Your task to perform on an android device: Open wifi settings Image 0: 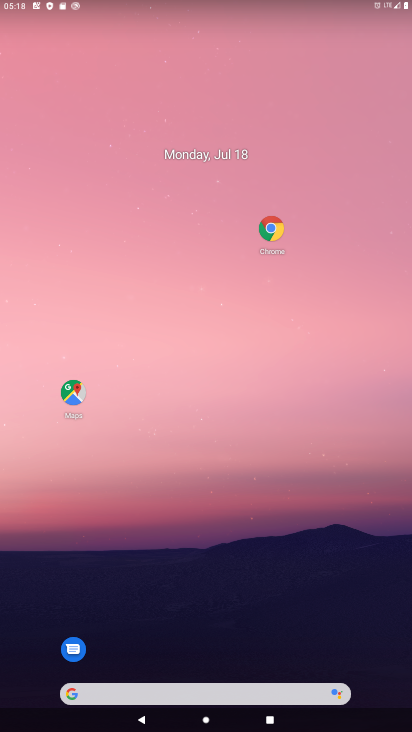
Step 0: click (276, 239)
Your task to perform on an android device: Open wifi settings Image 1: 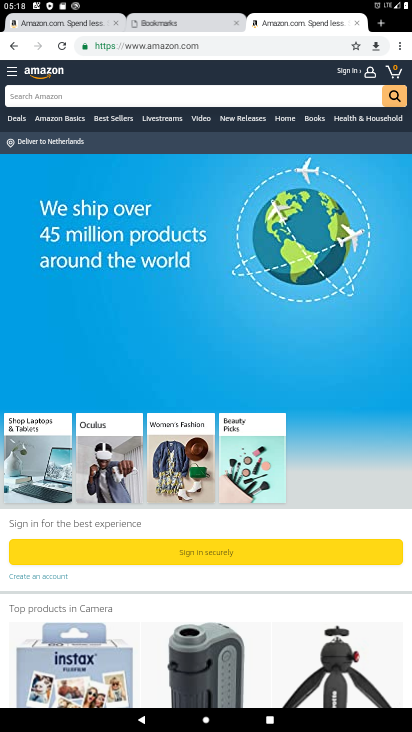
Step 1: drag from (254, 11) to (255, 613)
Your task to perform on an android device: Open wifi settings Image 2: 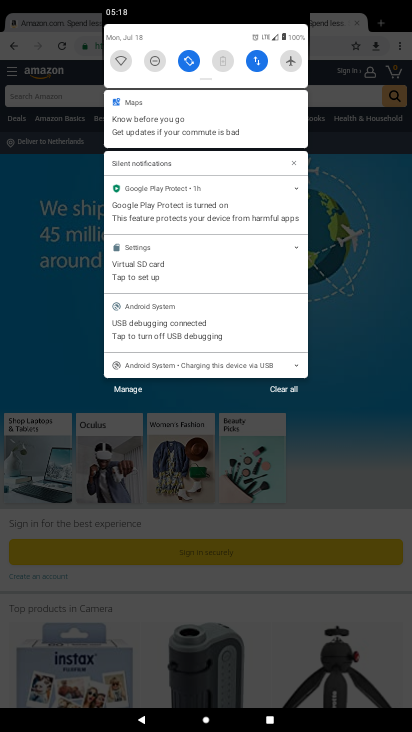
Step 2: click (117, 64)
Your task to perform on an android device: Open wifi settings Image 3: 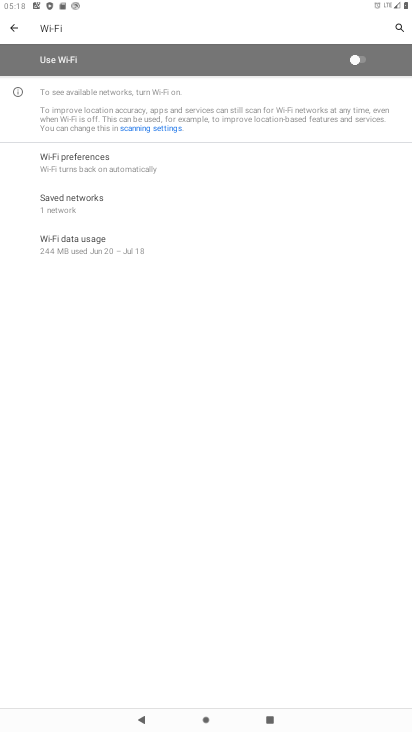
Step 3: task complete